Your task to perform on an android device: change text size in settings app Image 0: 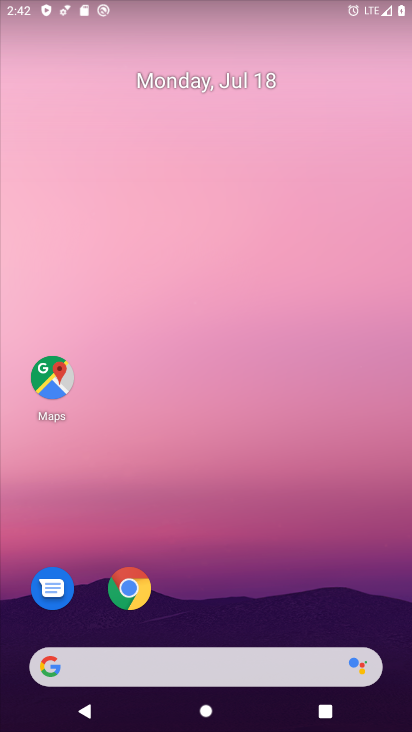
Step 0: drag from (194, 610) to (275, 34)
Your task to perform on an android device: change text size in settings app Image 1: 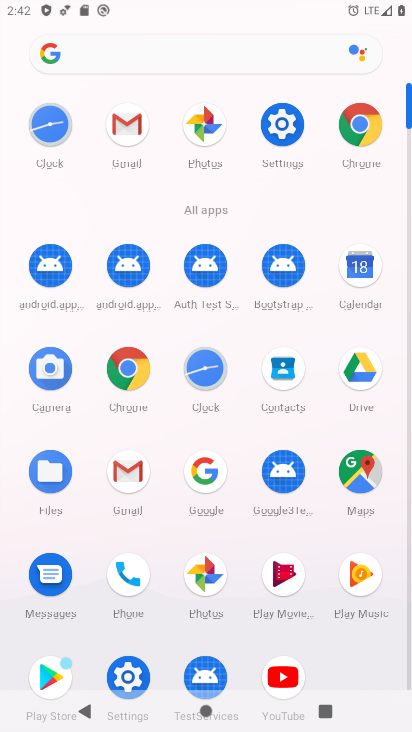
Step 1: click (280, 115)
Your task to perform on an android device: change text size in settings app Image 2: 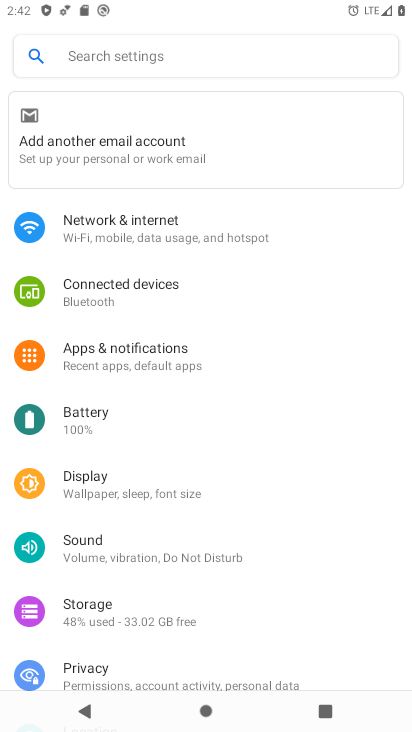
Step 2: click (138, 54)
Your task to perform on an android device: change text size in settings app Image 3: 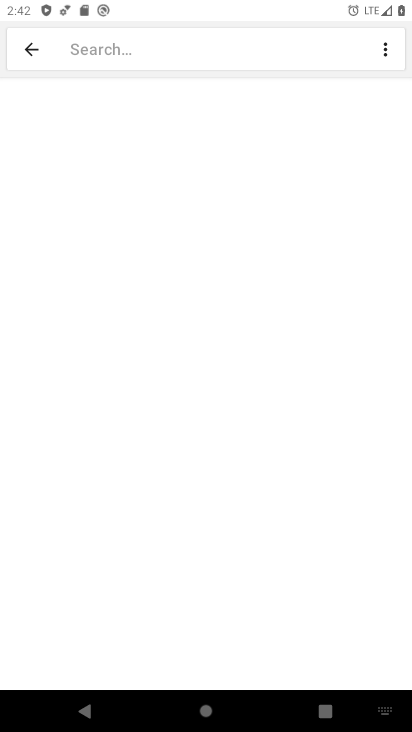
Step 3: click (168, 46)
Your task to perform on an android device: change text size in settings app Image 4: 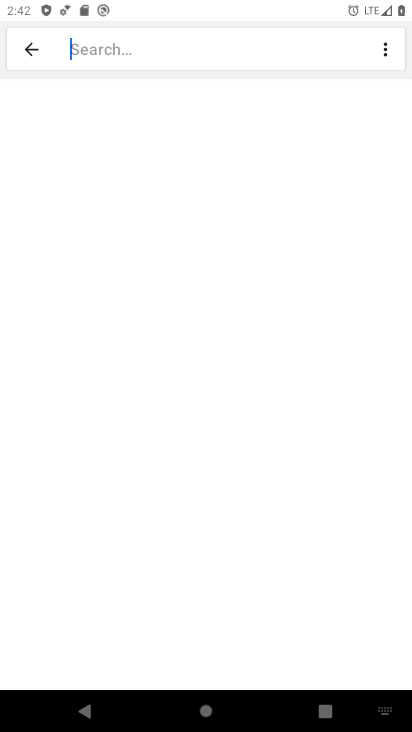
Step 4: type "text size"
Your task to perform on an android device: change text size in settings app Image 5: 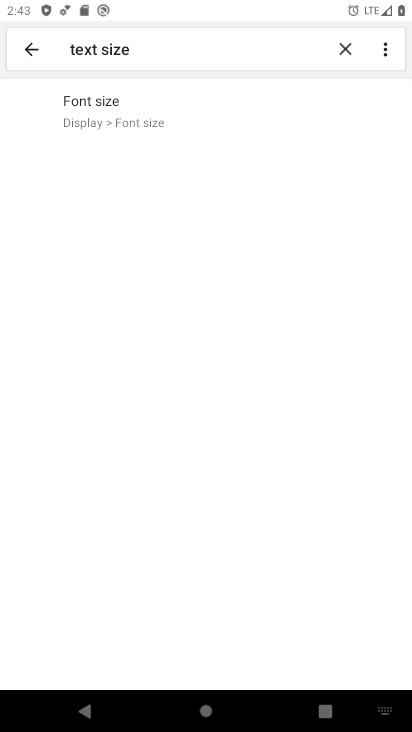
Step 5: click (124, 106)
Your task to perform on an android device: change text size in settings app Image 6: 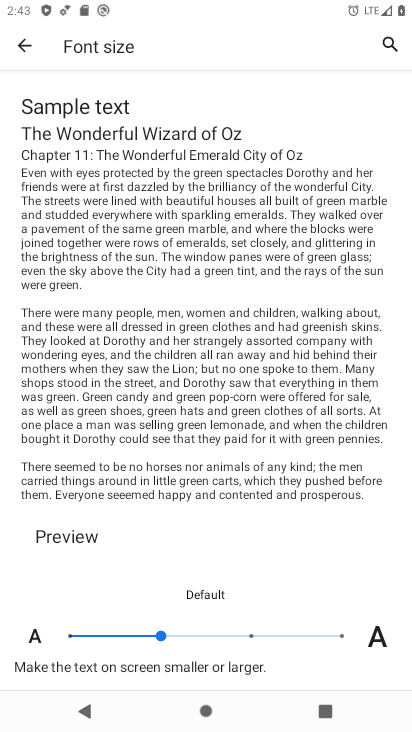
Step 6: task complete